Your task to perform on an android device: see creations saved in the google photos Image 0: 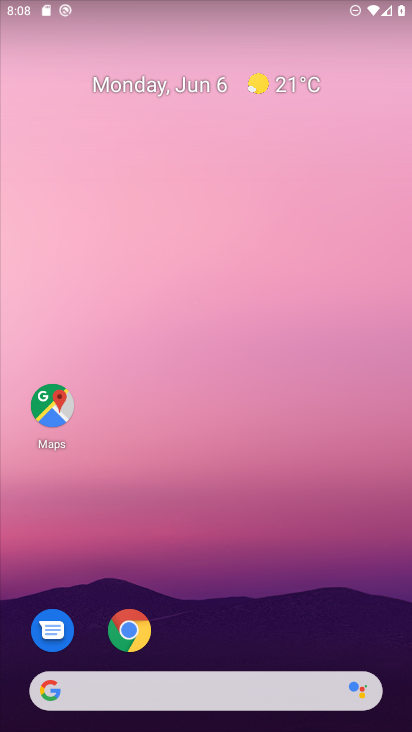
Step 0: drag from (210, 672) to (308, 86)
Your task to perform on an android device: see creations saved in the google photos Image 1: 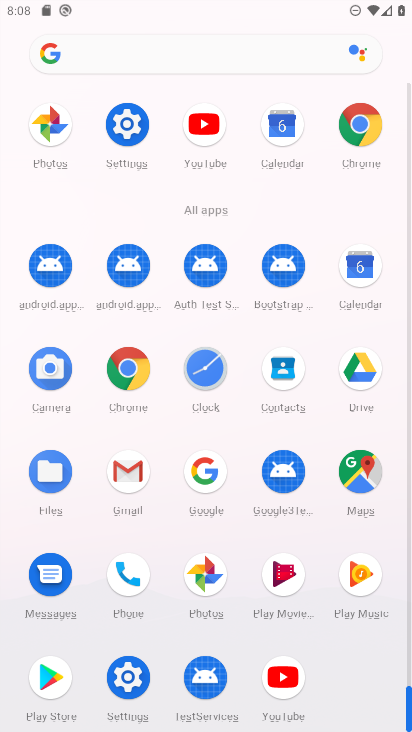
Step 1: click (217, 575)
Your task to perform on an android device: see creations saved in the google photos Image 2: 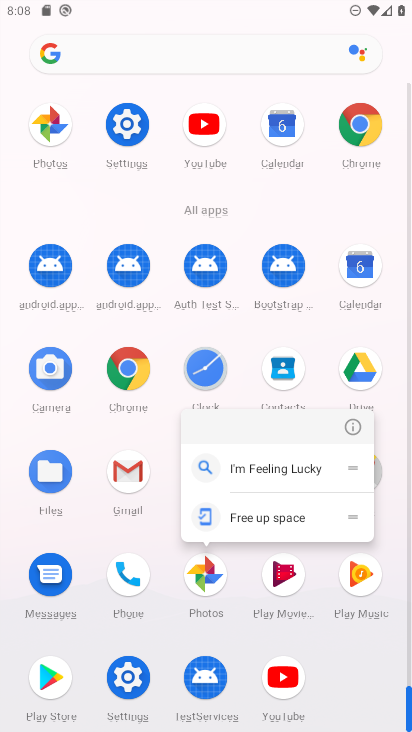
Step 2: click (206, 578)
Your task to perform on an android device: see creations saved in the google photos Image 3: 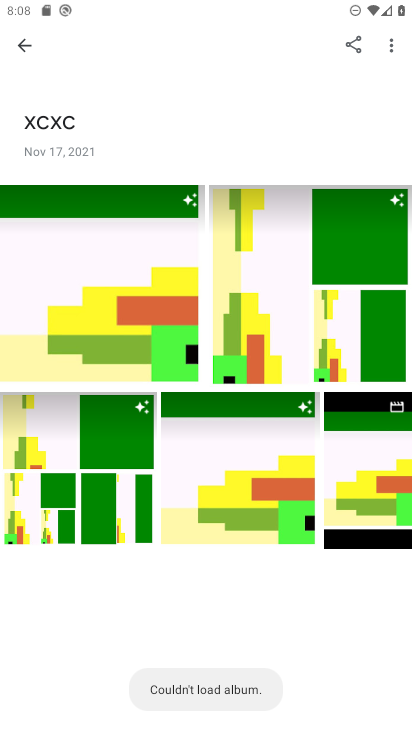
Step 3: click (17, 42)
Your task to perform on an android device: see creations saved in the google photos Image 4: 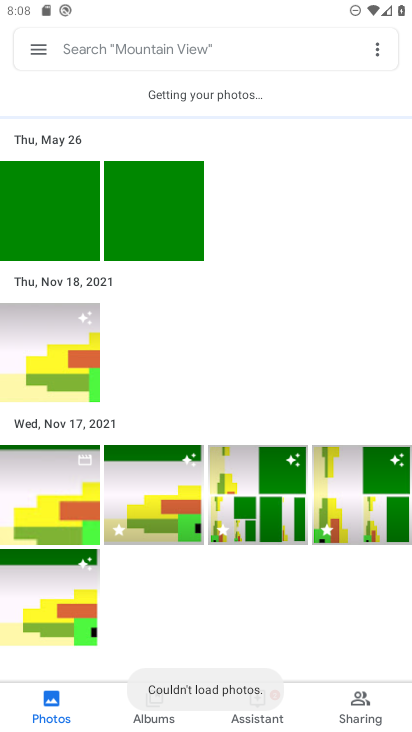
Step 4: click (158, 43)
Your task to perform on an android device: see creations saved in the google photos Image 5: 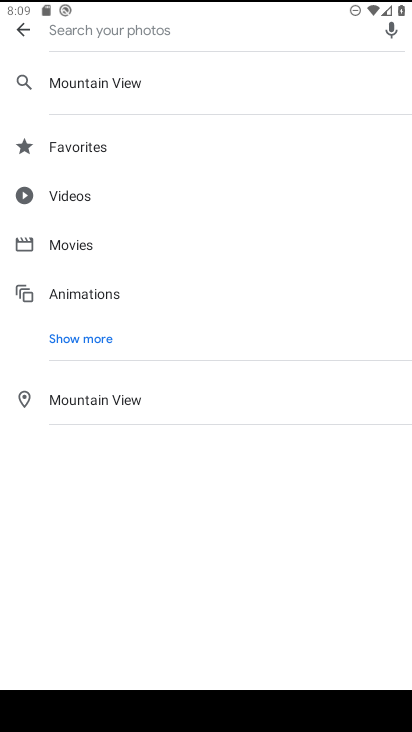
Step 5: click (75, 334)
Your task to perform on an android device: see creations saved in the google photos Image 6: 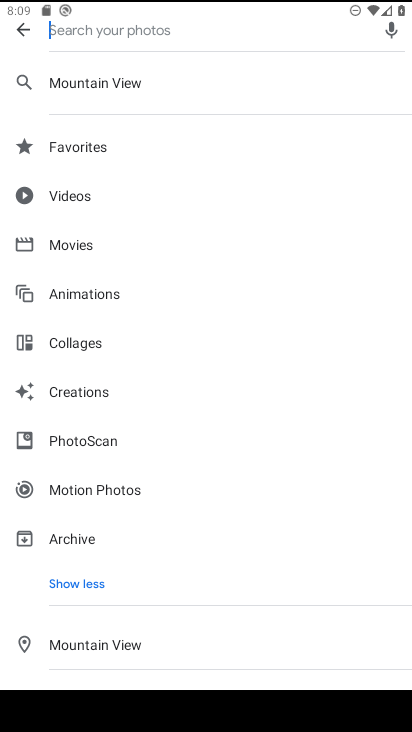
Step 6: click (142, 396)
Your task to perform on an android device: see creations saved in the google photos Image 7: 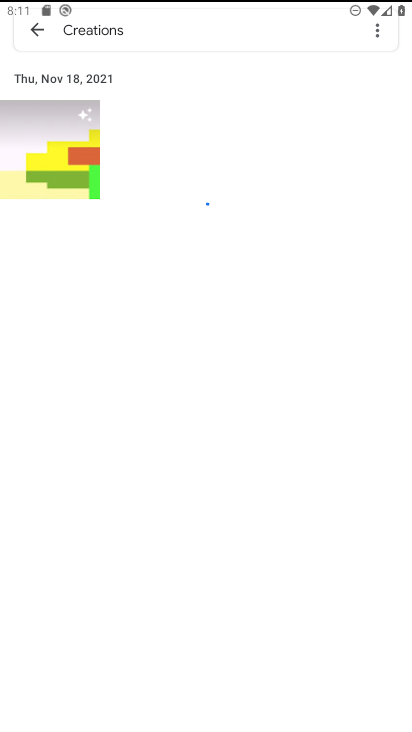
Step 7: task complete